Your task to perform on an android device: Search for Mexican restaurants on Maps Image 0: 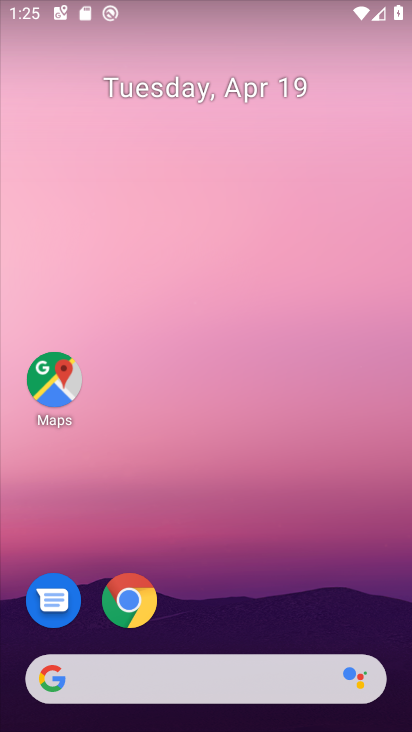
Step 0: drag from (267, 485) to (255, 0)
Your task to perform on an android device: Search for Mexican restaurants on Maps Image 1: 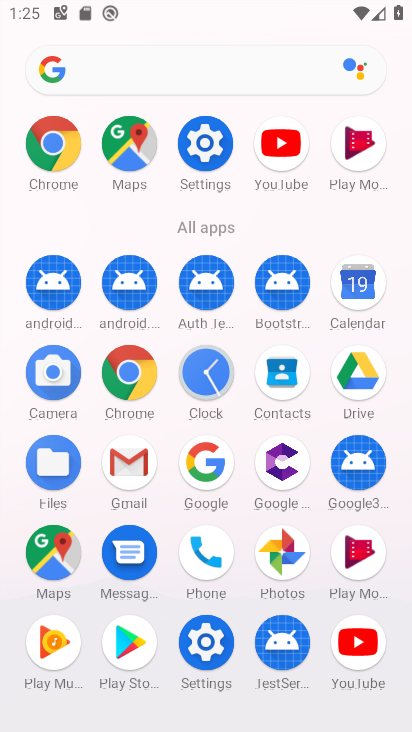
Step 1: click (123, 146)
Your task to perform on an android device: Search for Mexican restaurants on Maps Image 2: 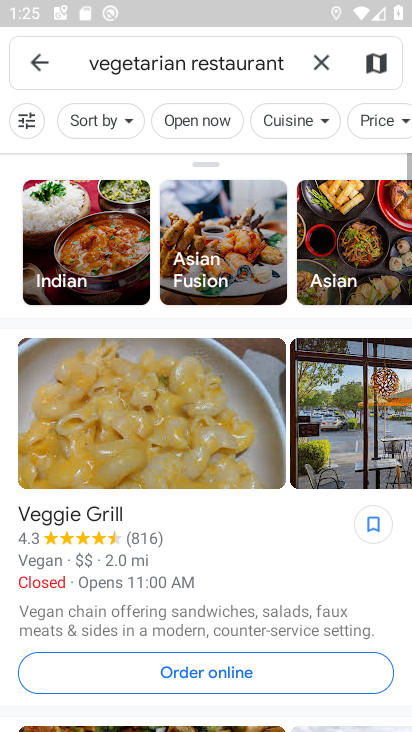
Step 2: click (328, 67)
Your task to perform on an android device: Search for Mexican restaurants on Maps Image 3: 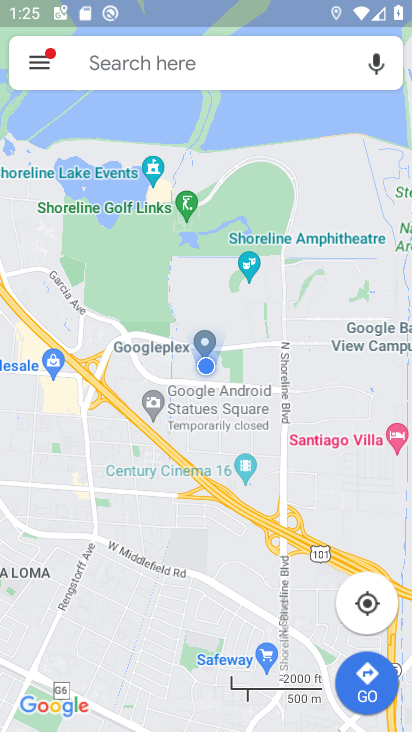
Step 3: click (225, 65)
Your task to perform on an android device: Search for Mexican restaurants on Maps Image 4: 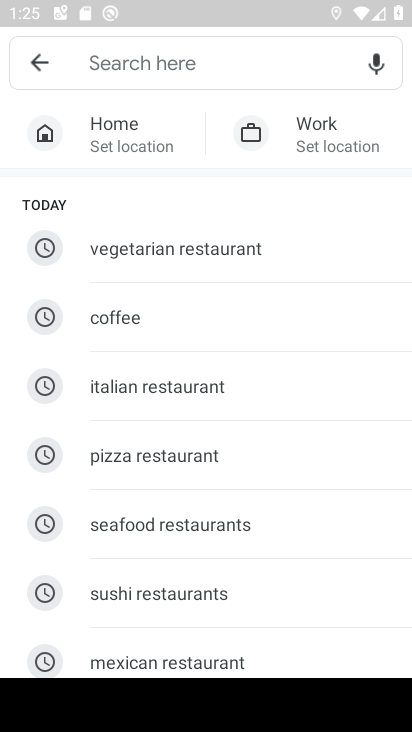
Step 4: drag from (176, 629) to (206, 314)
Your task to perform on an android device: Search for Mexican restaurants on Maps Image 5: 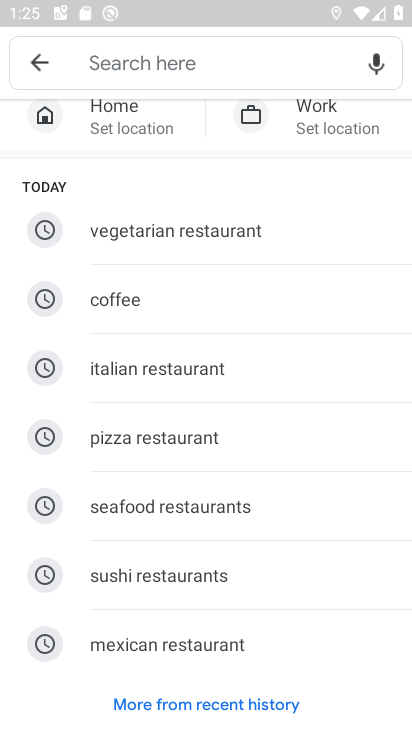
Step 5: click (171, 635)
Your task to perform on an android device: Search for Mexican restaurants on Maps Image 6: 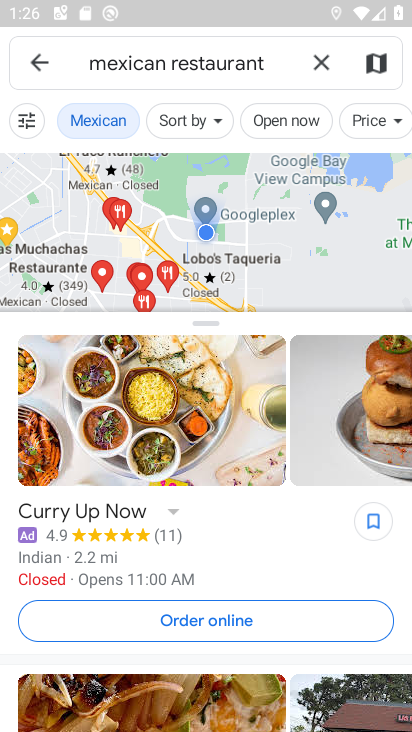
Step 6: task complete